Your task to perform on an android device: Go to settings Image 0: 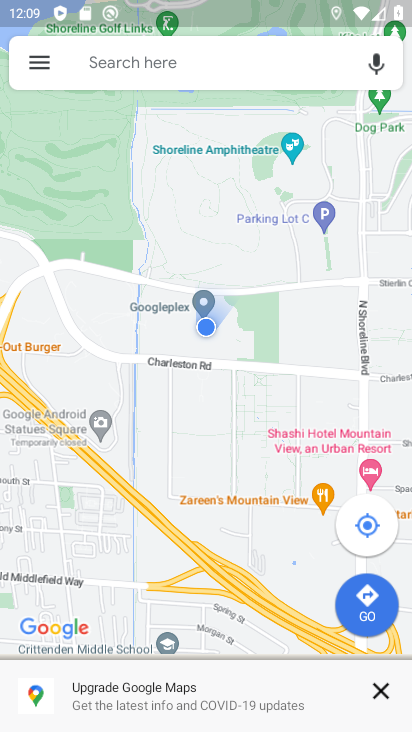
Step 0: press home button
Your task to perform on an android device: Go to settings Image 1: 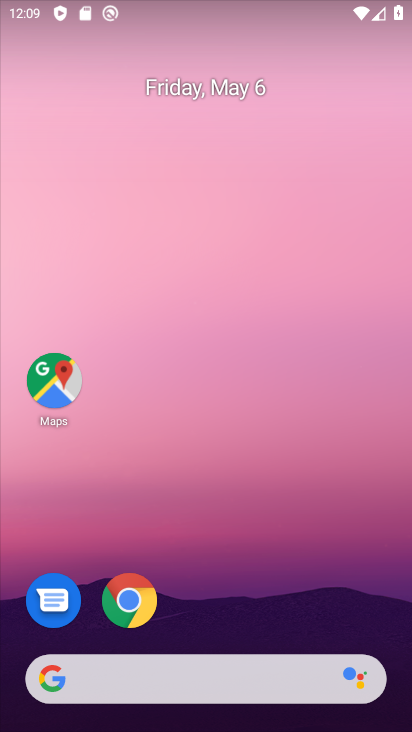
Step 1: drag from (349, 607) to (333, 68)
Your task to perform on an android device: Go to settings Image 2: 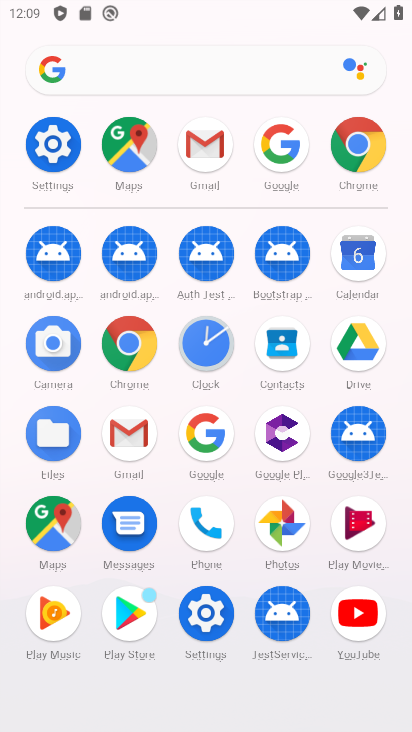
Step 2: click (211, 626)
Your task to perform on an android device: Go to settings Image 3: 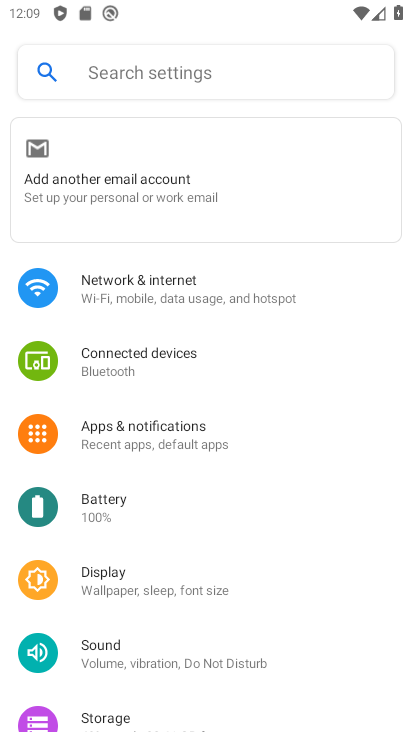
Step 3: task complete